Your task to perform on an android device: turn pop-ups off in chrome Image 0: 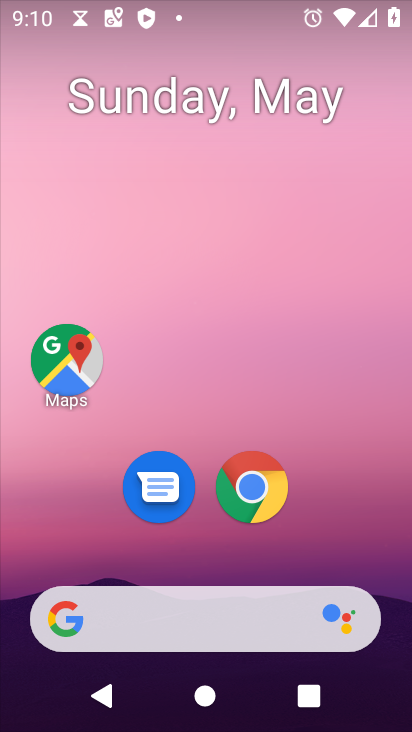
Step 0: drag from (334, 476) to (263, 5)
Your task to perform on an android device: turn pop-ups off in chrome Image 1: 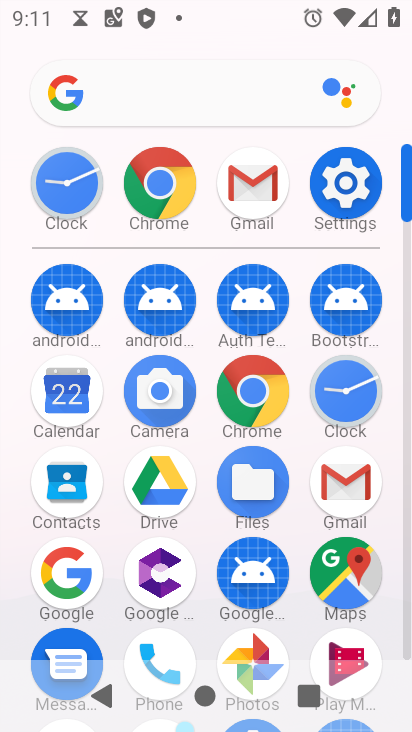
Step 1: click (158, 183)
Your task to perform on an android device: turn pop-ups off in chrome Image 2: 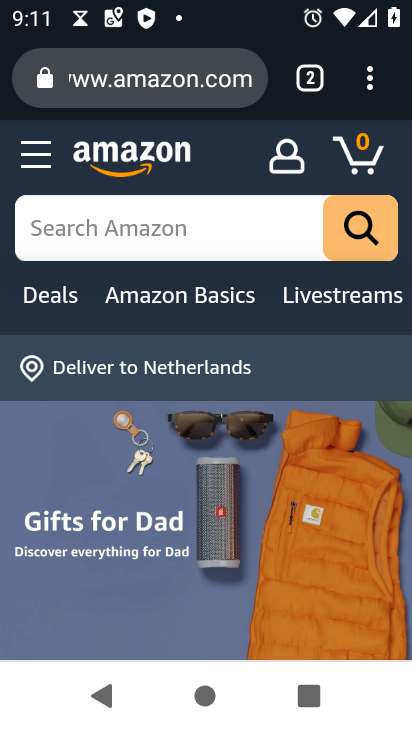
Step 2: drag from (370, 86) to (154, 546)
Your task to perform on an android device: turn pop-ups off in chrome Image 3: 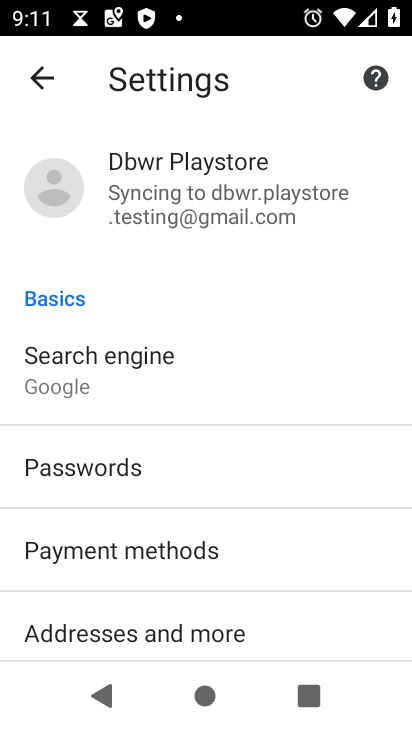
Step 3: drag from (177, 587) to (254, 241)
Your task to perform on an android device: turn pop-ups off in chrome Image 4: 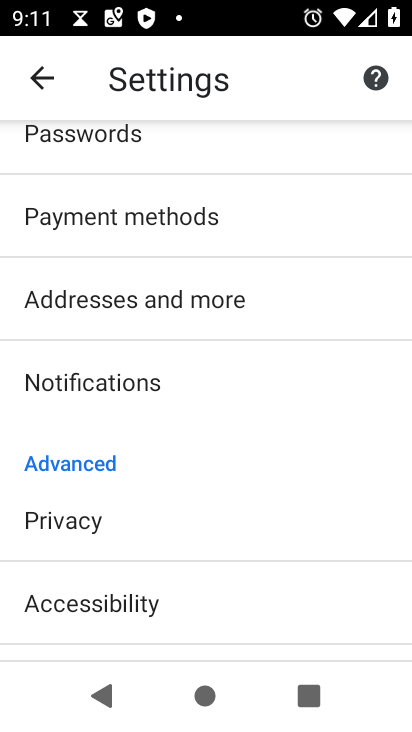
Step 4: drag from (186, 590) to (214, 284)
Your task to perform on an android device: turn pop-ups off in chrome Image 5: 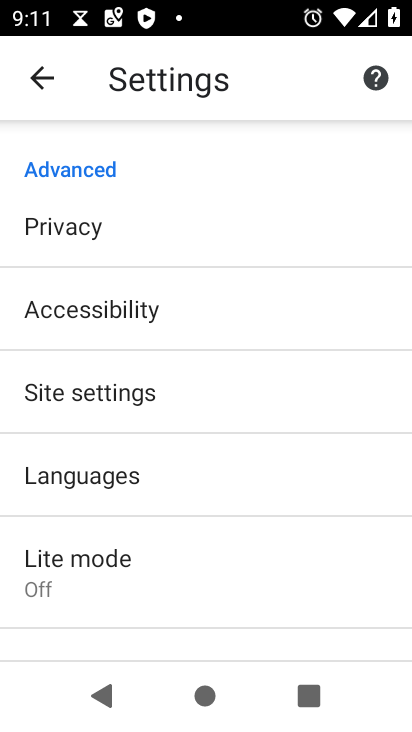
Step 5: click (117, 390)
Your task to perform on an android device: turn pop-ups off in chrome Image 6: 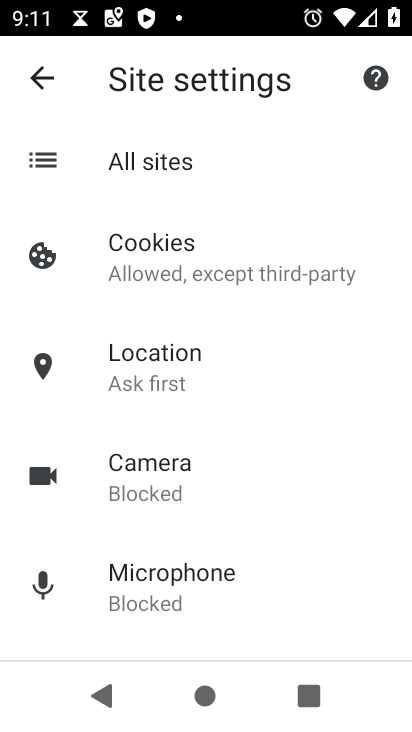
Step 6: drag from (174, 566) to (159, 295)
Your task to perform on an android device: turn pop-ups off in chrome Image 7: 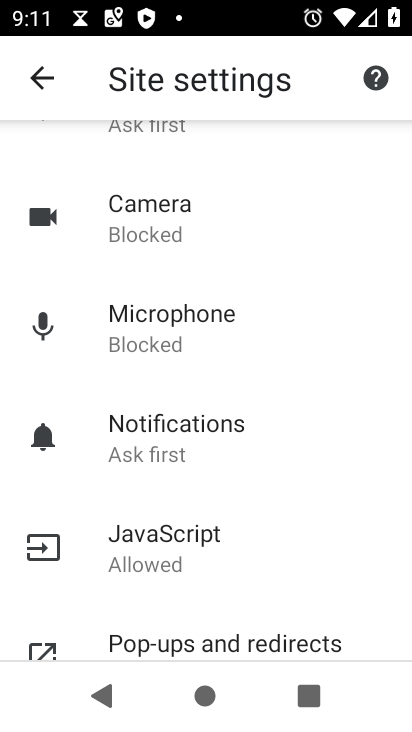
Step 7: drag from (157, 553) to (164, 312)
Your task to perform on an android device: turn pop-ups off in chrome Image 8: 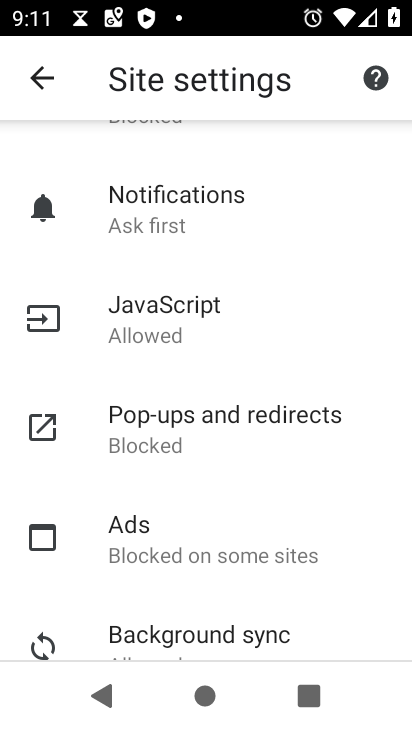
Step 8: click (199, 408)
Your task to perform on an android device: turn pop-ups off in chrome Image 9: 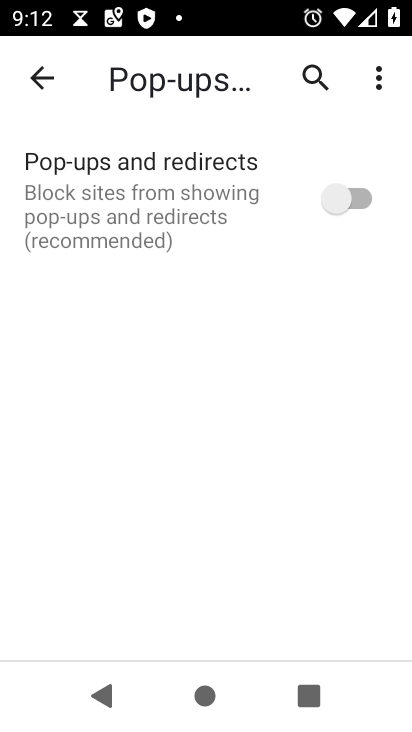
Step 9: task complete